Your task to perform on an android device: Go to settings Image 0: 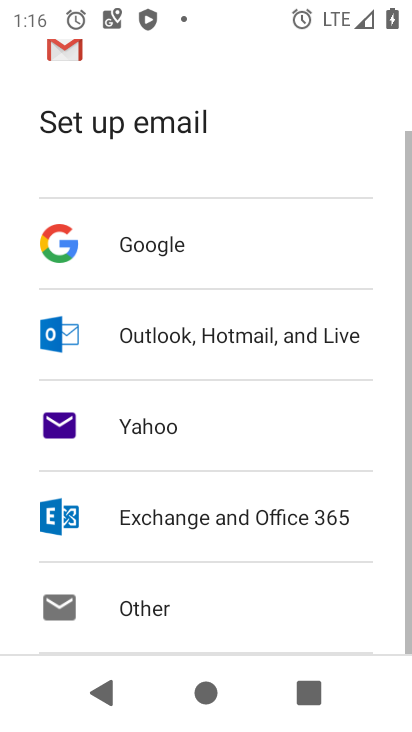
Step 0: press home button
Your task to perform on an android device: Go to settings Image 1: 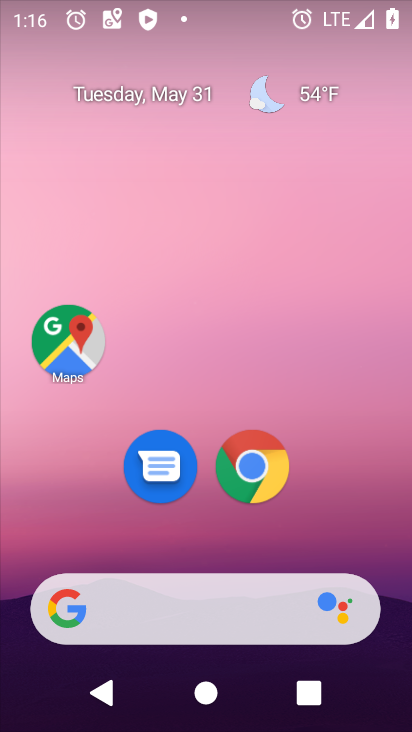
Step 1: drag from (223, 607) to (154, 41)
Your task to perform on an android device: Go to settings Image 2: 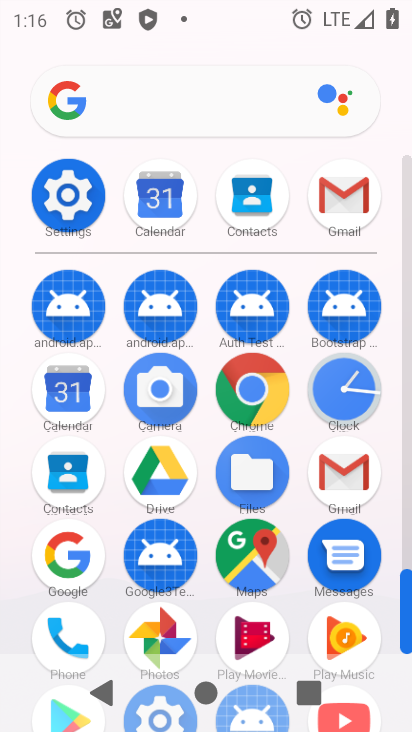
Step 2: click (72, 210)
Your task to perform on an android device: Go to settings Image 3: 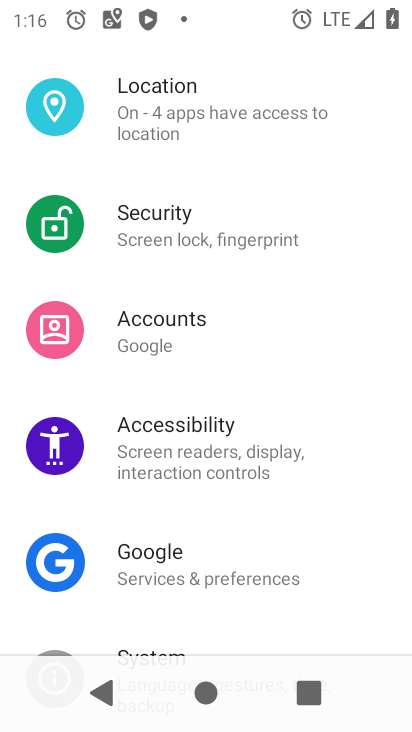
Step 3: task complete